Your task to perform on an android device: Open calendar and show me the fourth week of next month Image 0: 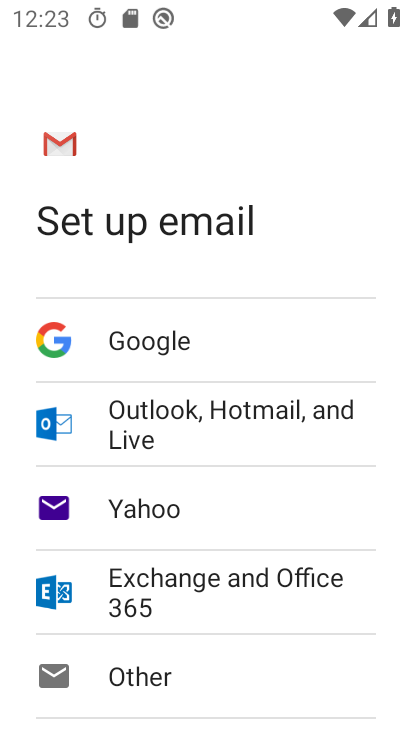
Step 0: press home button
Your task to perform on an android device: Open calendar and show me the fourth week of next month Image 1: 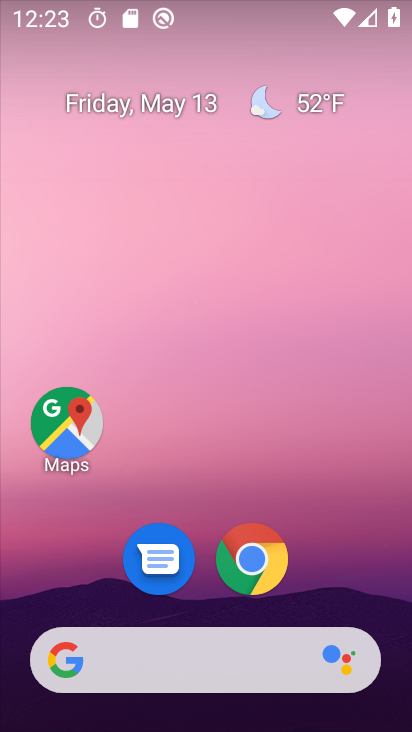
Step 1: drag from (288, 566) to (326, 132)
Your task to perform on an android device: Open calendar and show me the fourth week of next month Image 2: 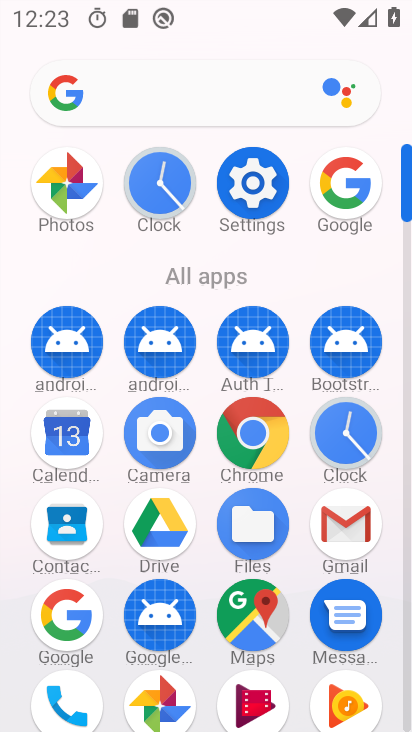
Step 2: click (62, 448)
Your task to perform on an android device: Open calendar and show me the fourth week of next month Image 3: 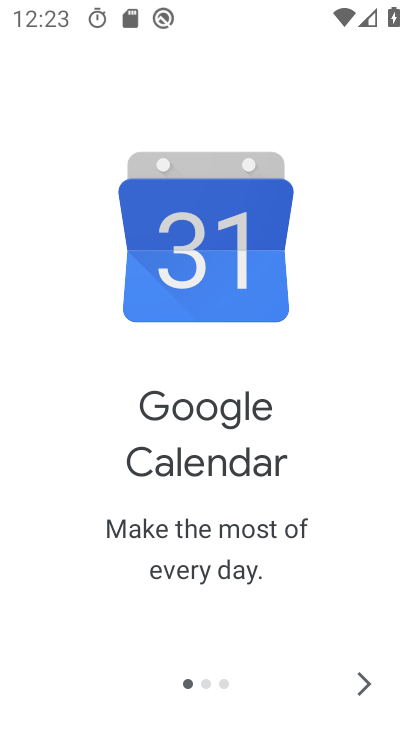
Step 3: click (363, 686)
Your task to perform on an android device: Open calendar and show me the fourth week of next month Image 4: 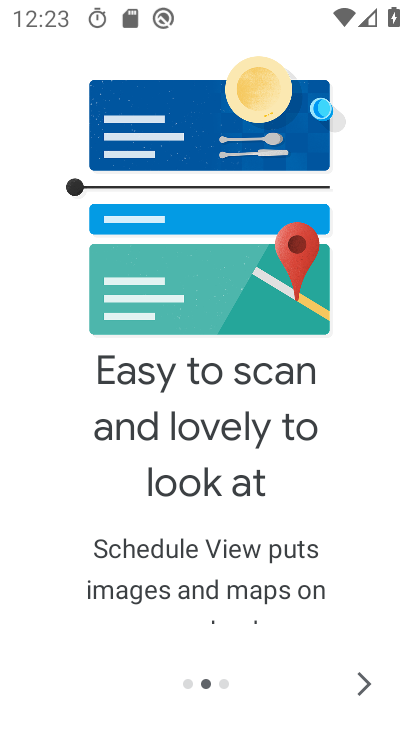
Step 4: click (366, 683)
Your task to perform on an android device: Open calendar and show me the fourth week of next month Image 5: 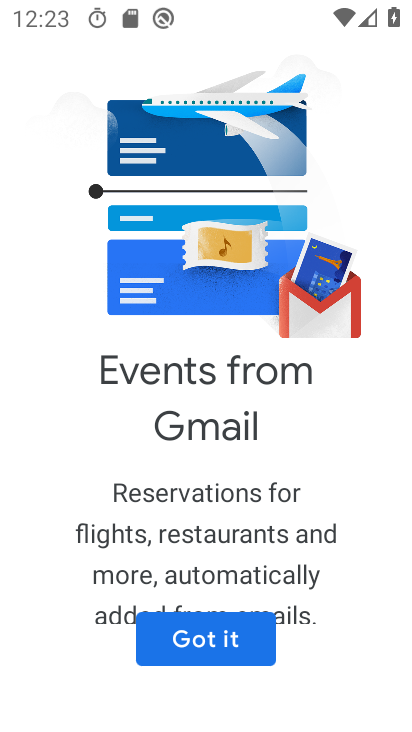
Step 5: click (188, 643)
Your task to perform on an android device: Open calendar and show me the fourth week of next month Image 6: 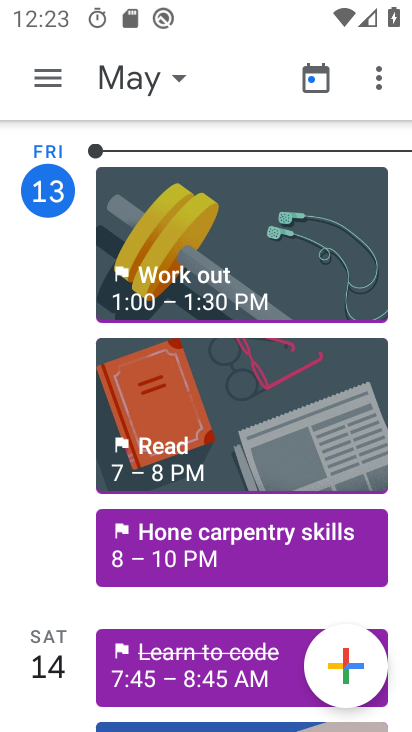
Step 6: click (130, 68)
Your task to perform on an android device: Open calendar and show me the fourth week of next month Image 7: 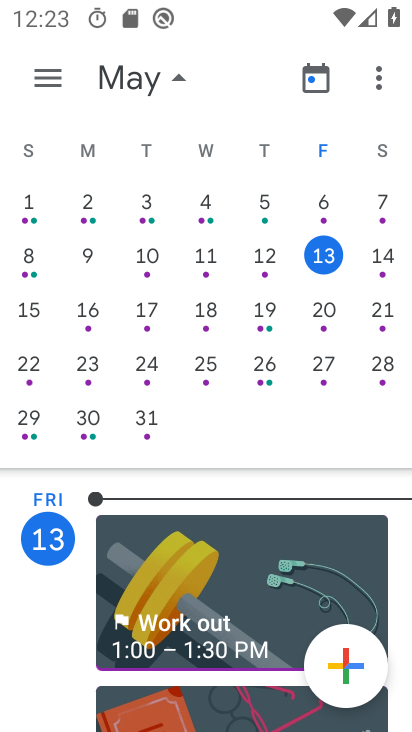
Step 7: drag from (23, 170) to (0, 325)
Your task to perform on an android device: Open calendar and show me the fourth week of next month Image 8: 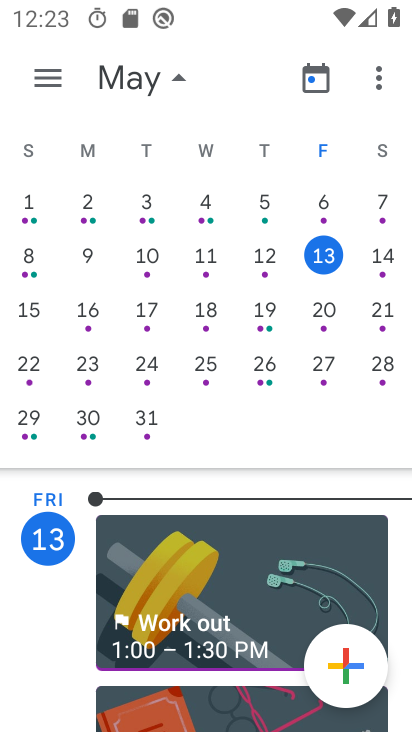
Step 8: drag from (301, 288) to (19, 290)
Your task to perform on an android device: Open calendar and show me the fourth week of next month Image 9: 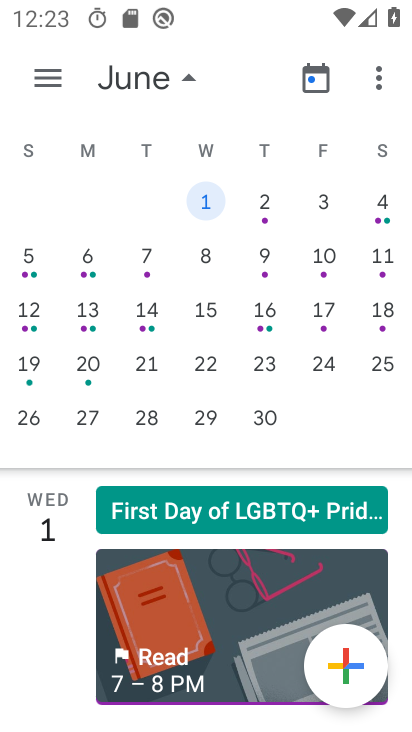
Step 9: click (37, 360)
Your task to perform on an android device: Open calendar and show me the fourth week of next month Image 10: 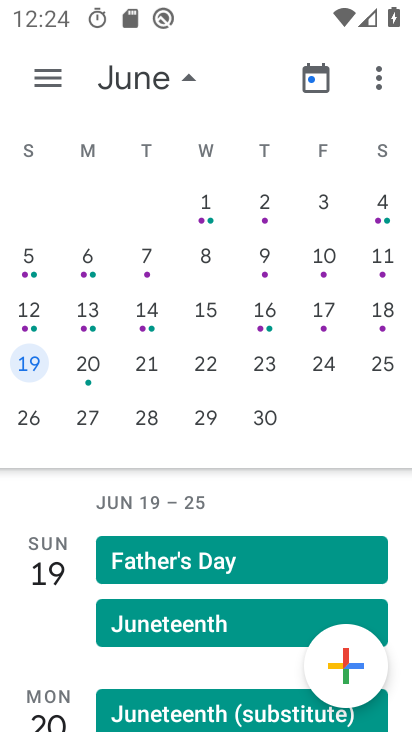
Step 10: task complete